Your task to perform on an android device: open app "Walmart Shopping & Grocery" (install if not already installed) and enter user name: "Hans@icloud.com" and password: "executing" Image 0: 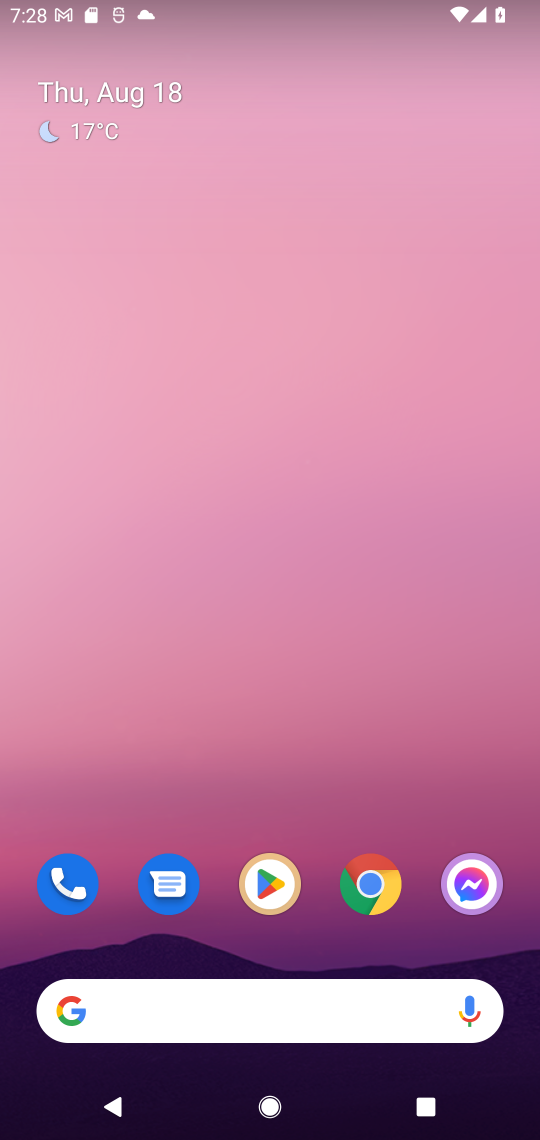
Step 0: drag from (222, 1009) to (319, 156)
Your task to perform on an android device: open app "Walmart Shopping & Grocery" (install if not already installed) and enter user name: "Hans@icloud.com" and password: "executing" Image 1: 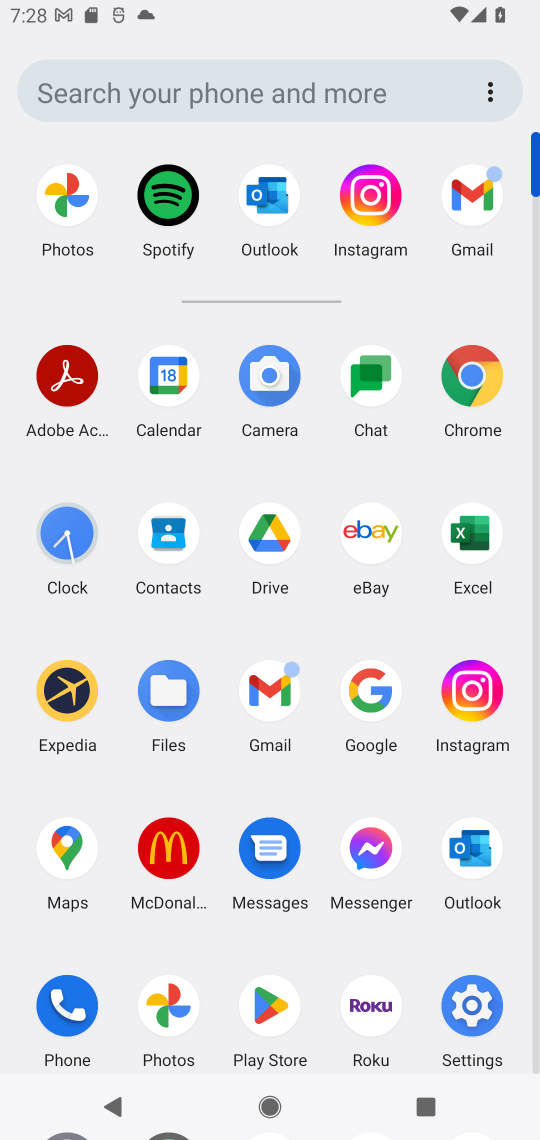
Step 1: click (274, 1003)
Your task to perform on an android device: open app "Walmart Shopping & Grocery" (install if not already installed) and enter user name: "Hans@icloud.com" and password: "executing" Image 2: 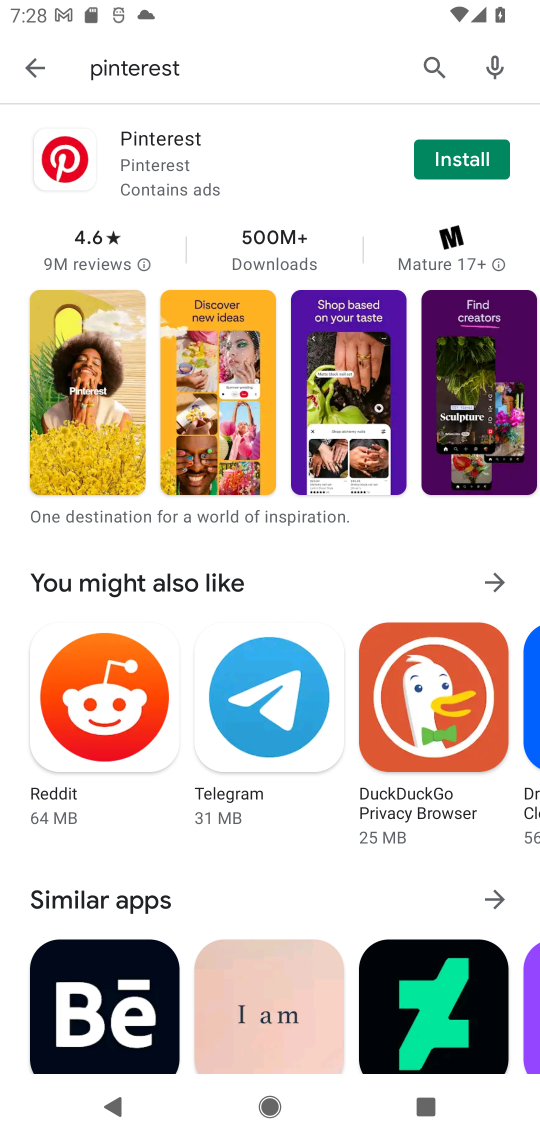
Step 2: press back button
Your task to perform on an android device: open app "Walmart Shopping & Grocery" (install if not already installed) and enter user name: "Hans@icloud.com" and password: "executing" Image 3: 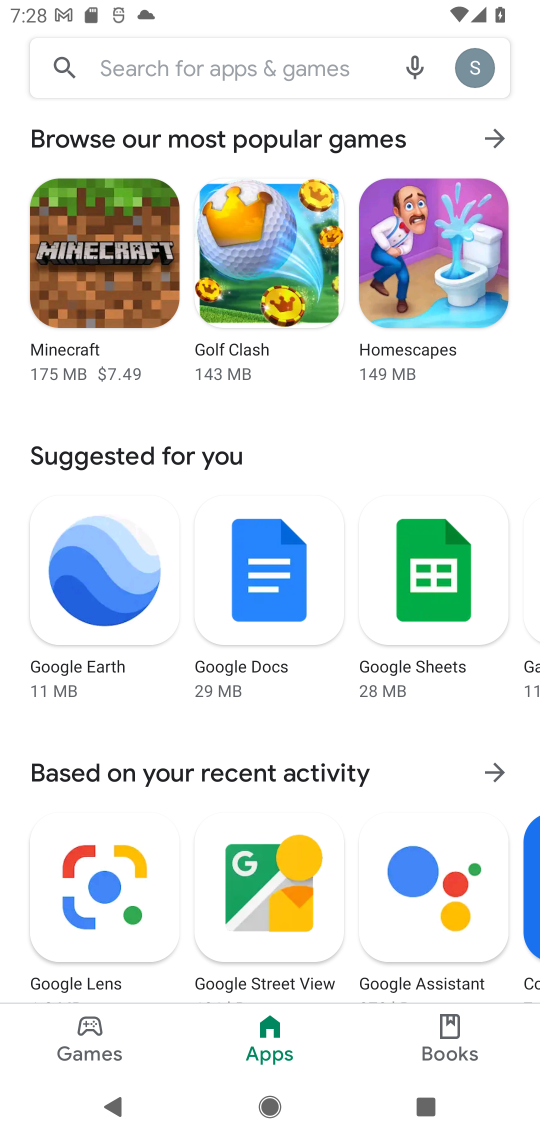
Step 3: click (153, 71)
Your task to perform on an android device: open app "Walmart Shopping & Grocery" (install if not already installed) and enter user name: "Hans@icloud.com" and password: "executing" Image 4: 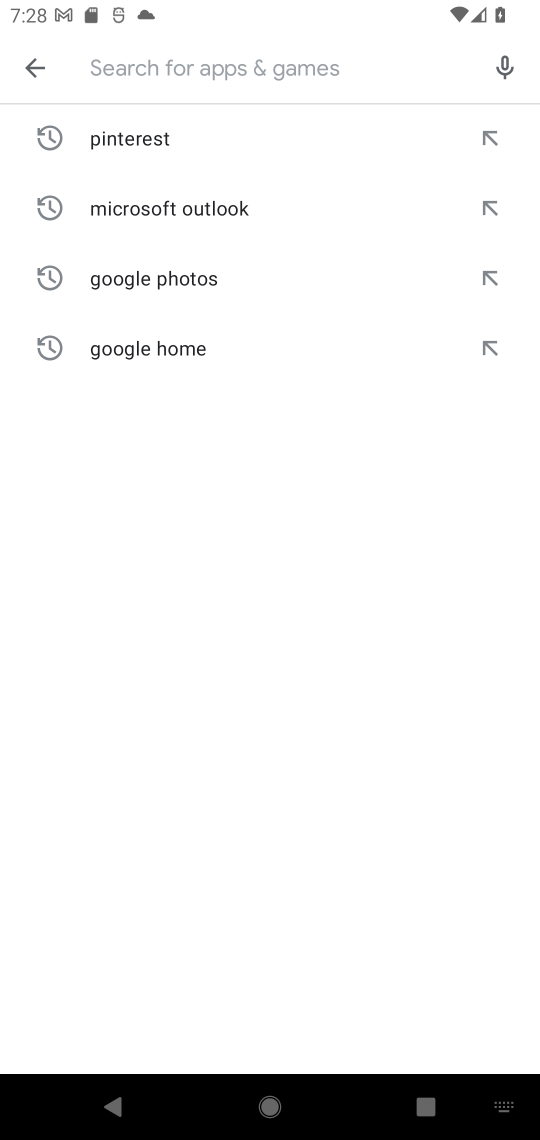
Step 4: type "Walmart Shopping & Grocery"
Your task to perform on an android device: open app "Walmart Shopping & Grocery" (install if not already installed) and enter user name: "Hans@icloud.com" and password: "executing" Image 5: 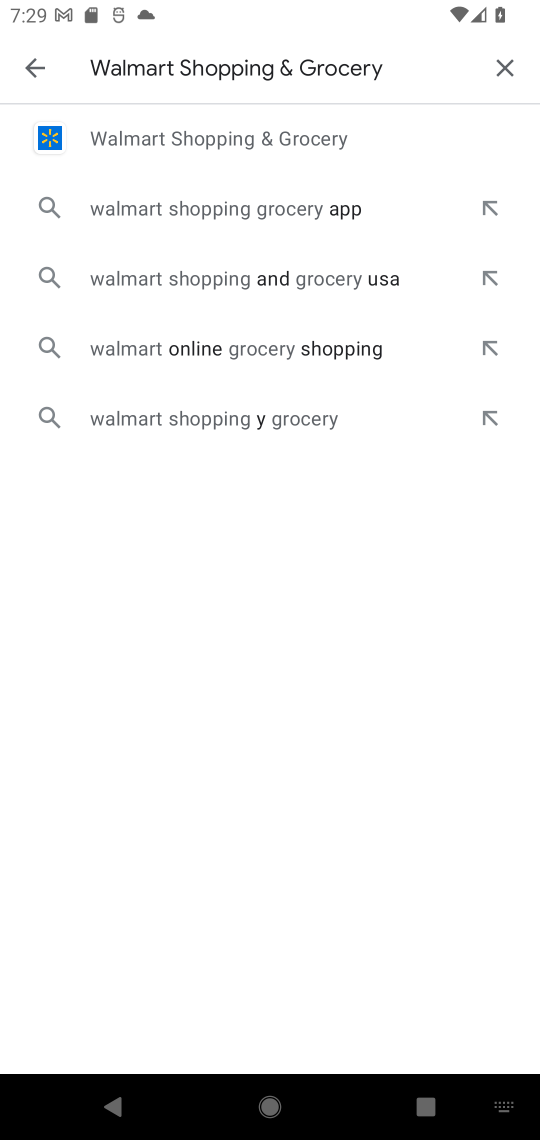
Step 5: click (275, 140)
Your task to perform on an android device: open app "Walmart Shopping & Grocery" (install if not already installed) and enter user name: "Hans@icloud.com" and password: "executing" Image 6: 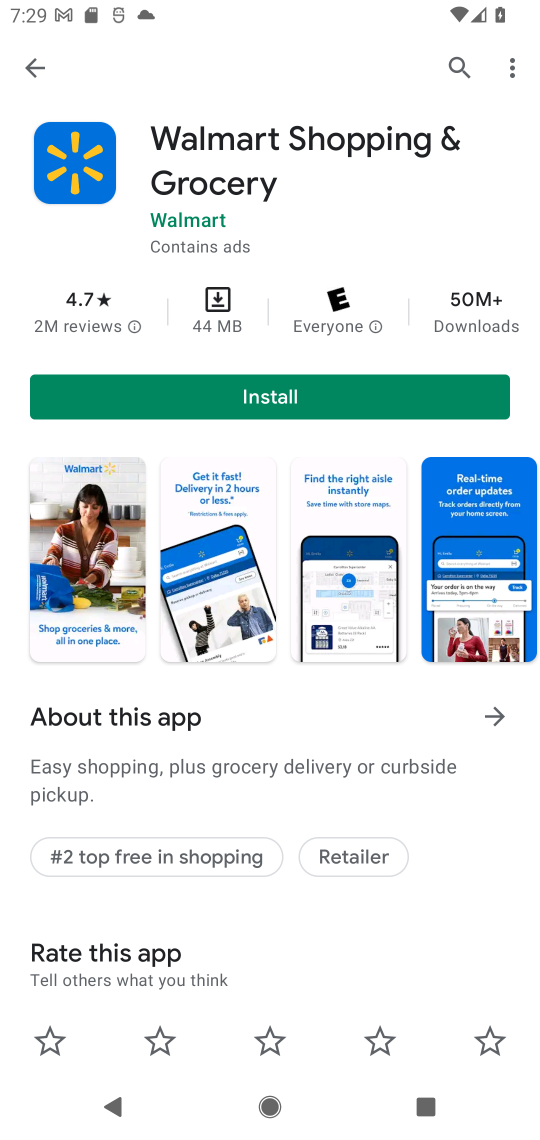
Step 6: click (268, 396)
Your task to perform on an android device: open app "Walmart Shopping & Grocery" (install if not already installed) and enter user name: "Hans@icloud.com" and password: "executing" Image 7: 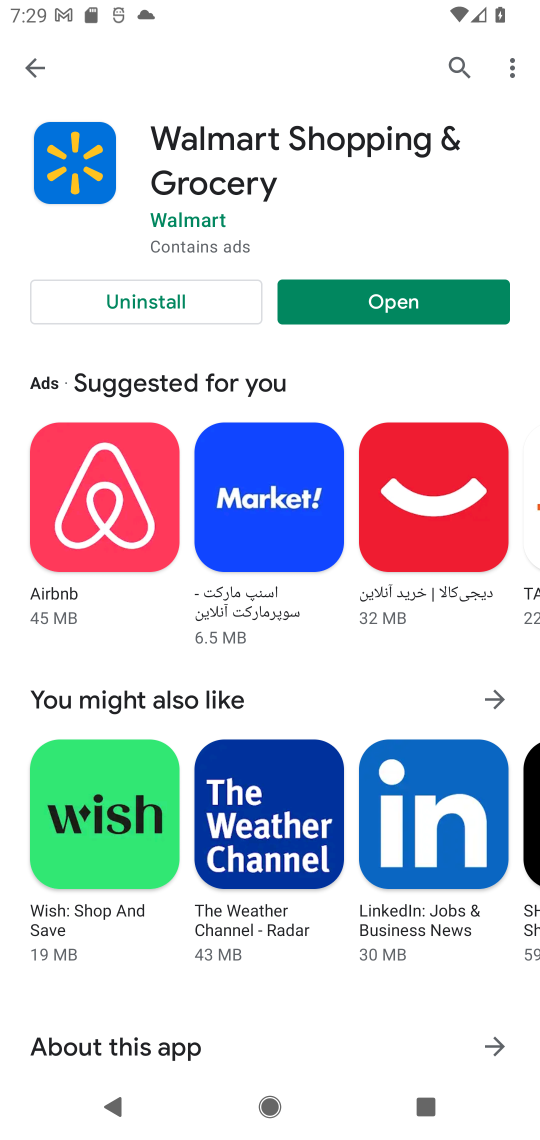
Step 7: click (405, 314)
Your task to perform on an android device: open app "Walmart Shopping & Grocery" (install if not already installed) and enter user name: "Hans@icloud.com" and password: "executing" Image 8: 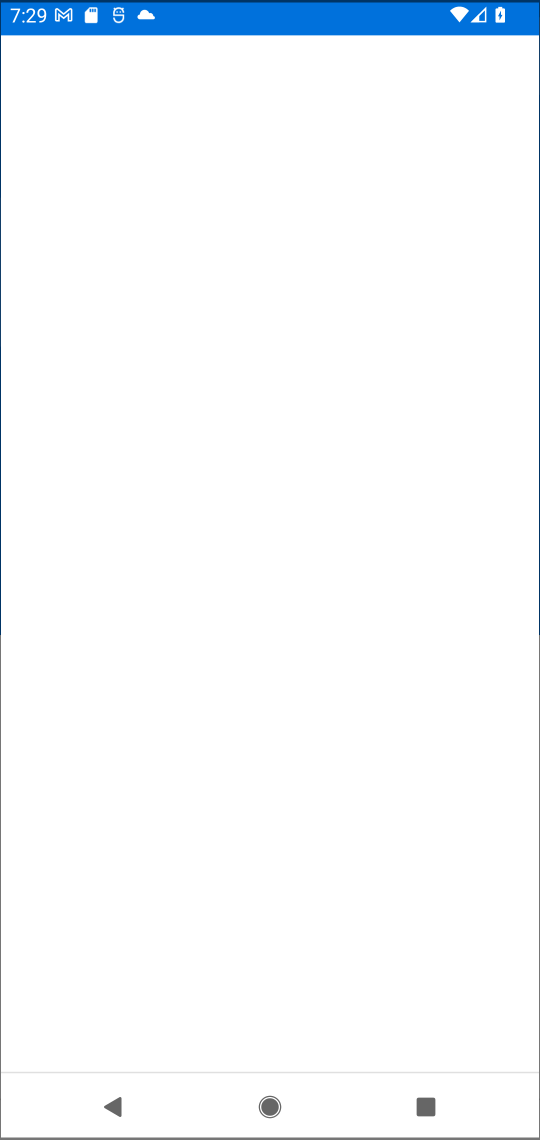
Step 8: click (308, 963)
Your task to perform on an android device: open app "Walmart Shopping & Grocery" (install if not already installed) and enter user name: "Hans@icloud.com" and password: "executing" Image 9: 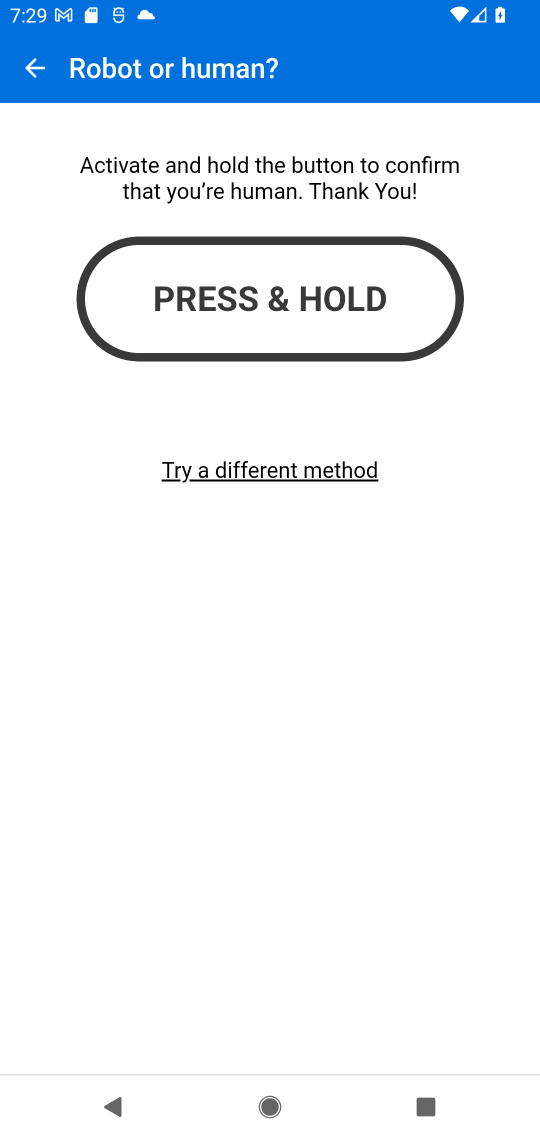
Step 9: click (324, 467)
Your task to perform on an android device: open app "Walmart Shopping & Grocery" (install if not already installed) and enter user name: "Hans@icloud.com" and password: "executing" Image 10: 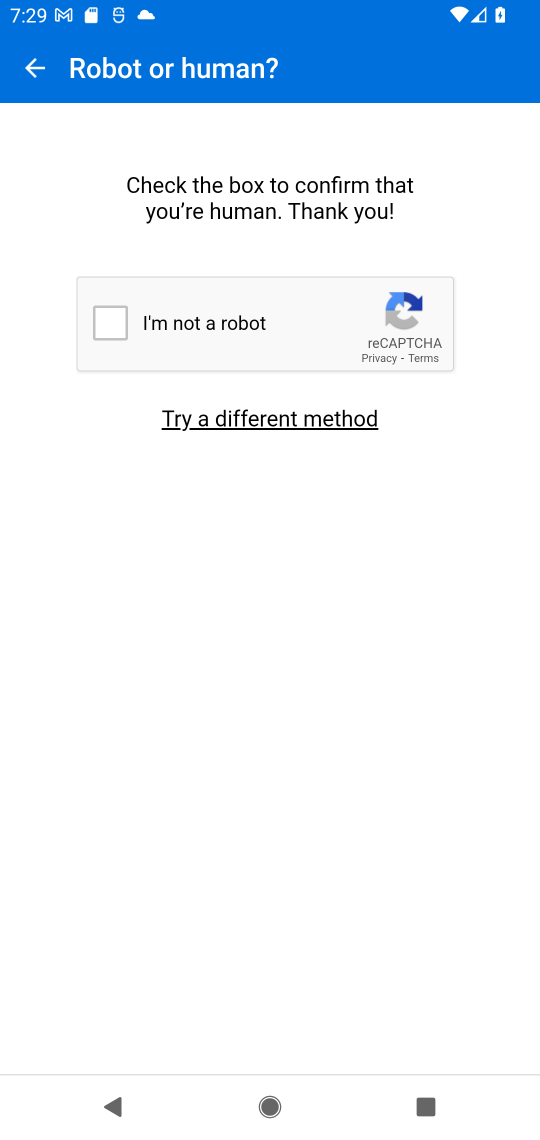
Step 10: click (104, 327)
Your task to perform on an android device: open app "Walmart Shopping & Grocery" (install if not already installed) and enter user name: "Hans@icloud.com" and password: "executing" Image 11: 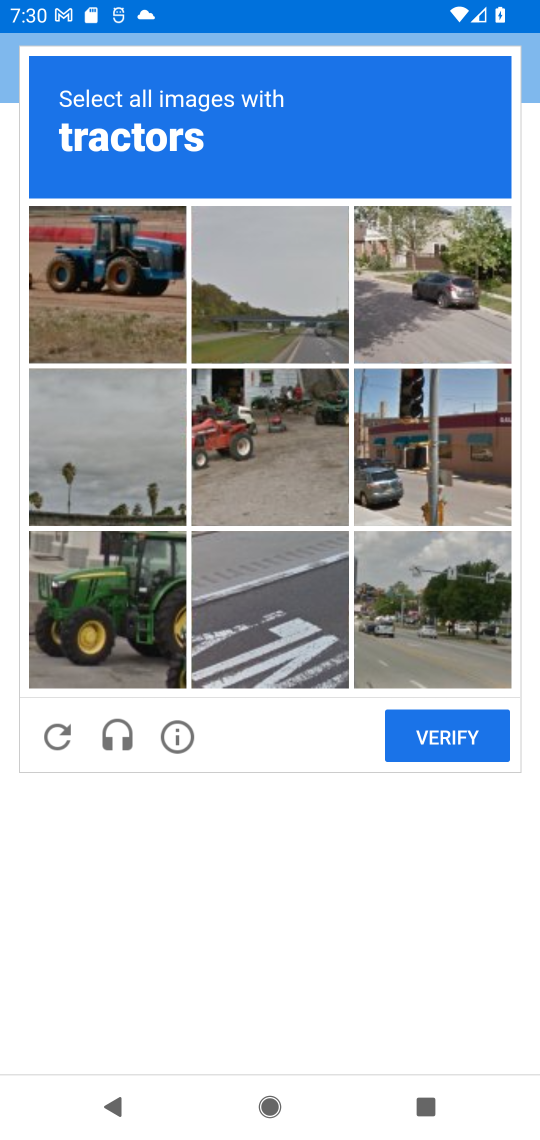
Step 11: click (121, 321)
Your task to perform on an android device: open app "Walmart Shopping & Grocery" (install if not already installed) and enter user name: "Hans@icloud.com" and password: "executing" Image 12: 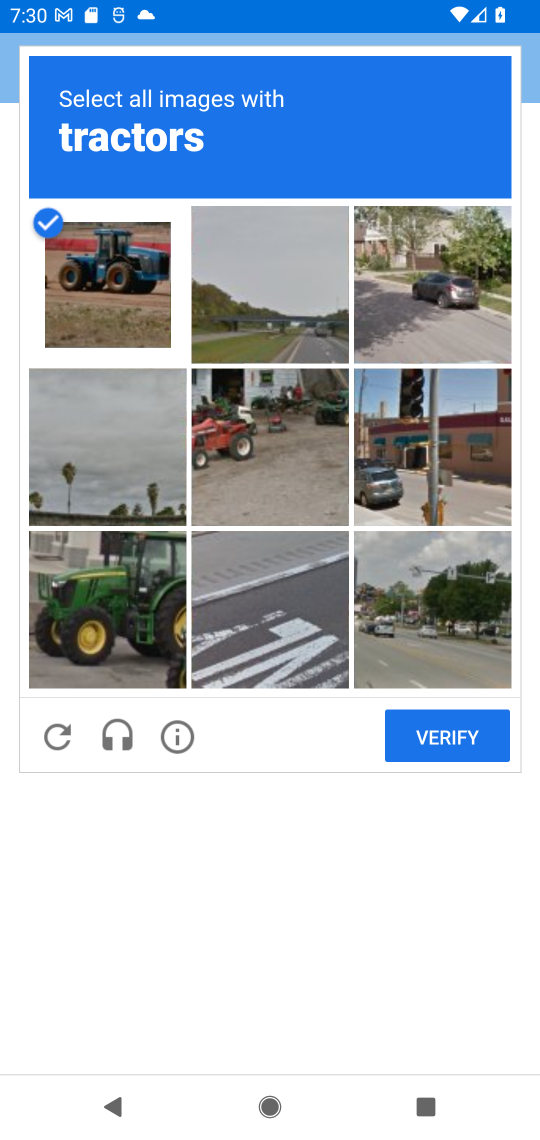
Step 12: click (233, 456)
Your task to perform on an android device: open app "Walmart Shopping & Grocery" (install if not already installed) and enter user name: "Hans@icloud.com" and password: "executing" Image 13: 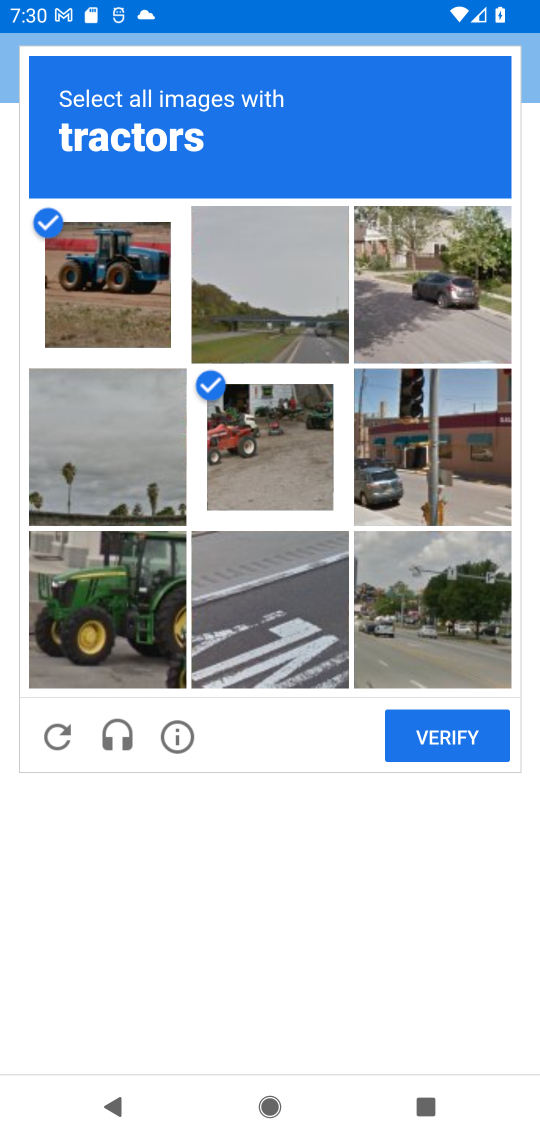
Step 13: click (134, 625)
Your task to perform on an android device: open app "Walmart Shopping & Grocery" (install if not already installed) and enter user name: "Hans@icloud.com" and password: "executing" Image 14: 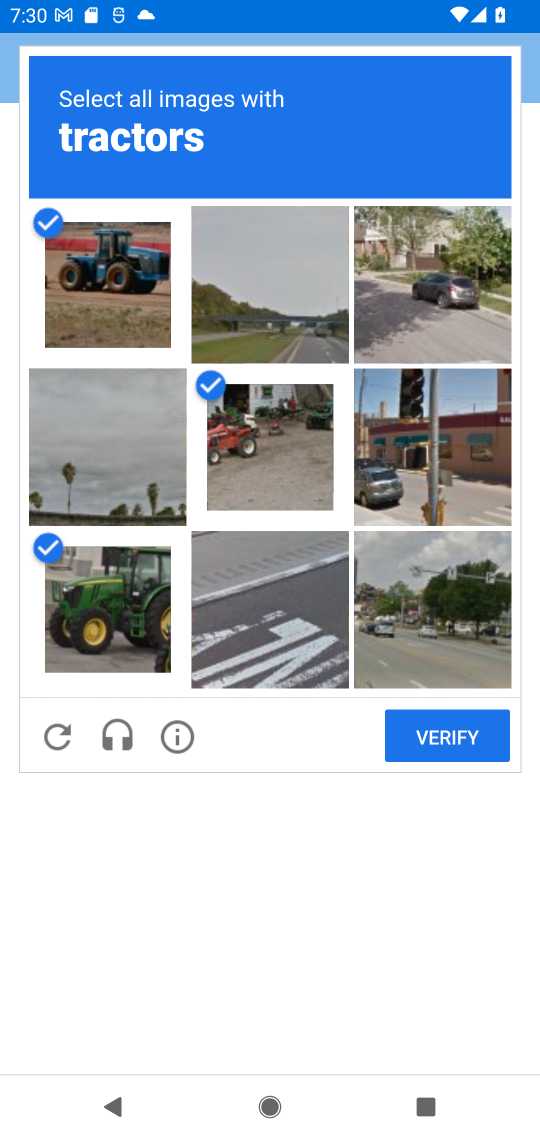
Step 14: click (461, 740)
Your task to perform on an android device: open app "Walmart Shopping & Grocery" (install if not already installed) and enter user name: "Hans@icloud.com" and password: "executing" Image 15: 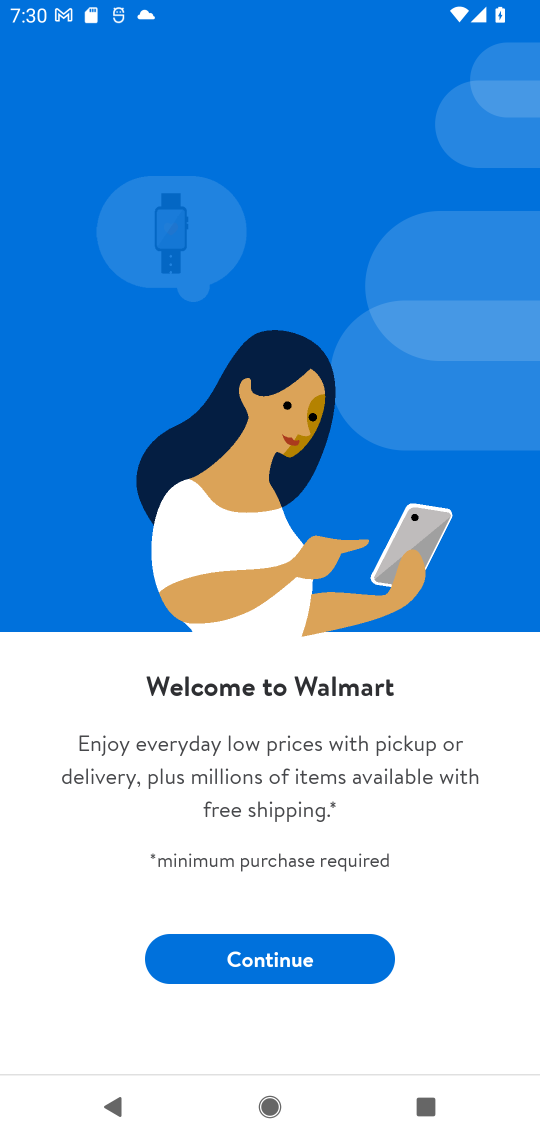
Step 15: click (276, 962)
Your task to perform on an android device: open app "Walmart Shopping & Grocery" (install if not already installed) and enter user name: "Hans@icloud.com" and password: "executing" Image 16: 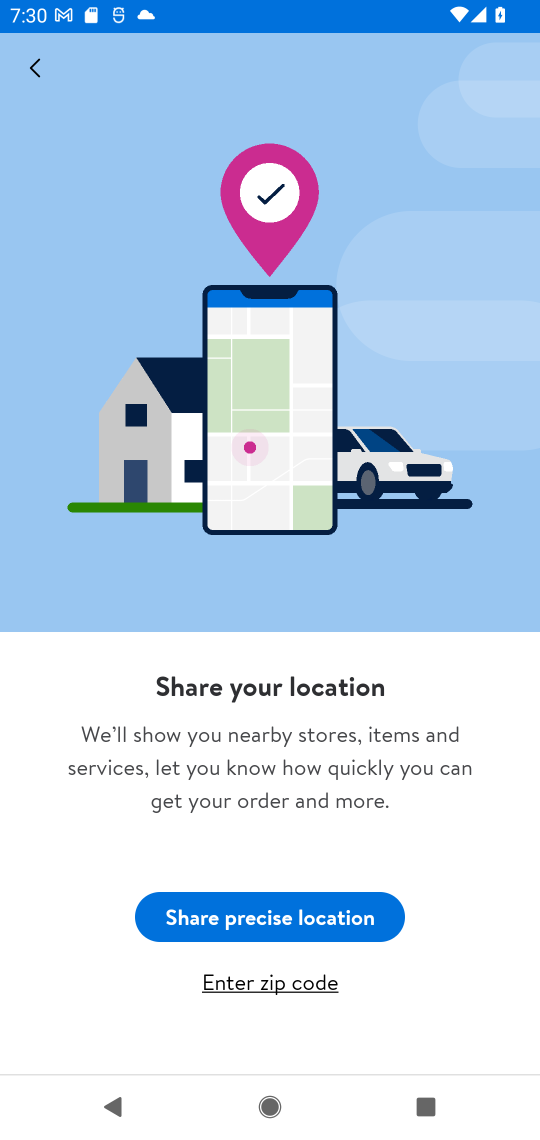
Step 16: click (297, 925)
Your task to perform on an android device: open app "Walmart Shopping & Grocery" (install if not already installed) and enter user name: "Hans@icloud.com" and password: "executing" Image 17: 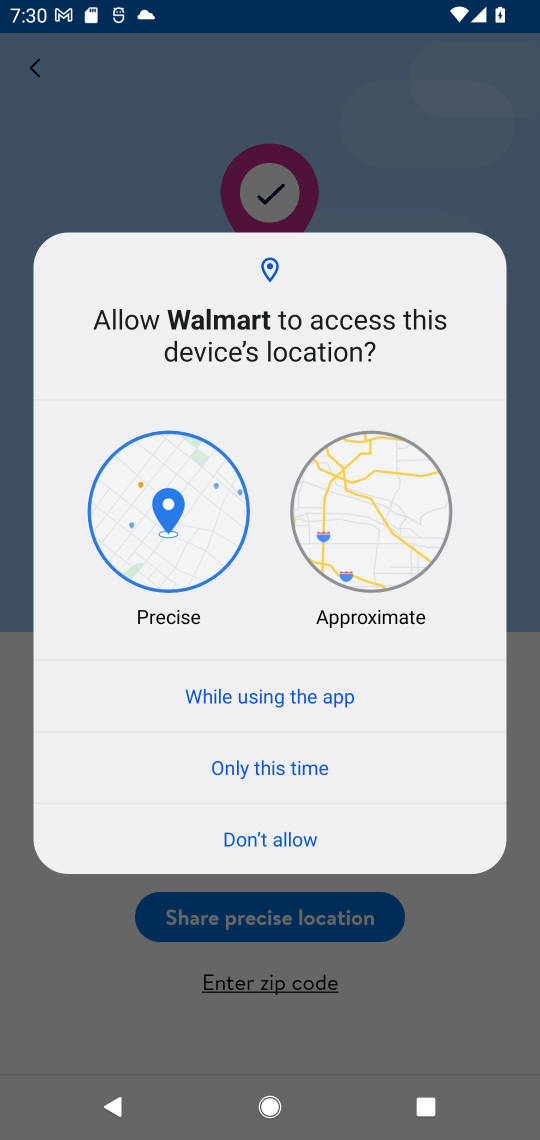
Step 17: click (290, 695)
Your task to perform on an android device: open app "Walmart Shopping & Grocery" (install if not already installed) and enter user name: "Hans@icloud.com" and password: "executing" Image 18: 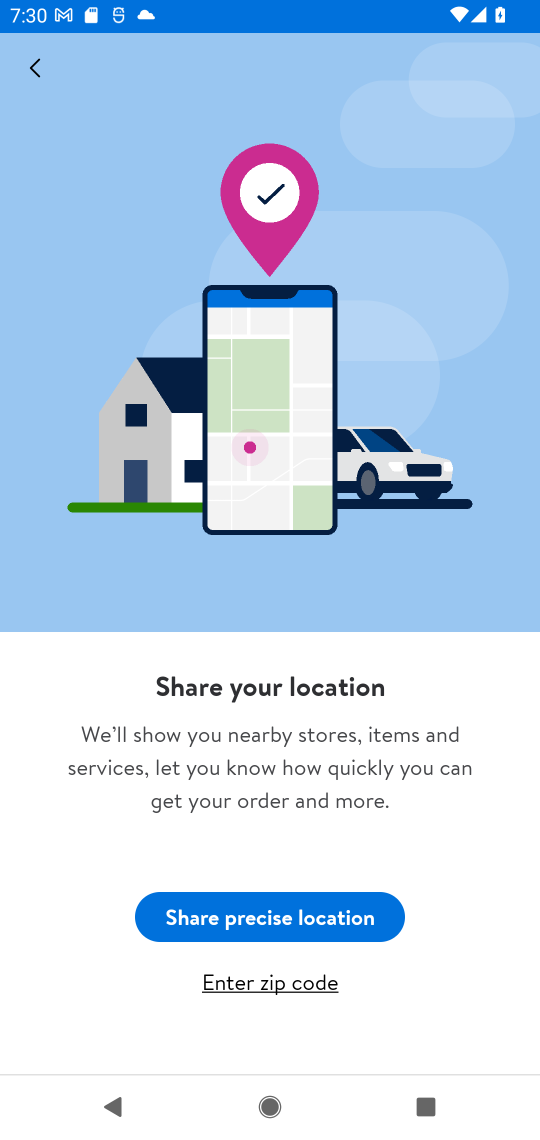
Step 18: click (282, 919)
Your task to perform on an android device: open app "Walmart Shopping & Grocery" (install if not already installed) and enter user name: "Hans@icloud.com" and password: "executing" Image 19: 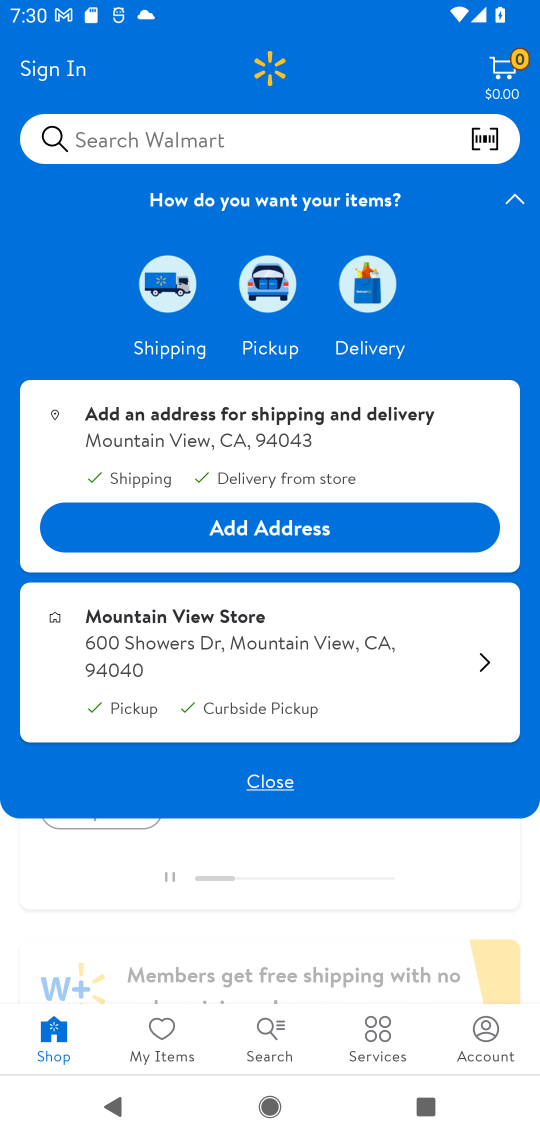
Step 19: click (58, 71)
Your task to perform on an android device: open app "Walmart Shopping & Grocery" (install if not already installed) and enter user name: "Hans@icloud.com" and password: "executing" Image 20: 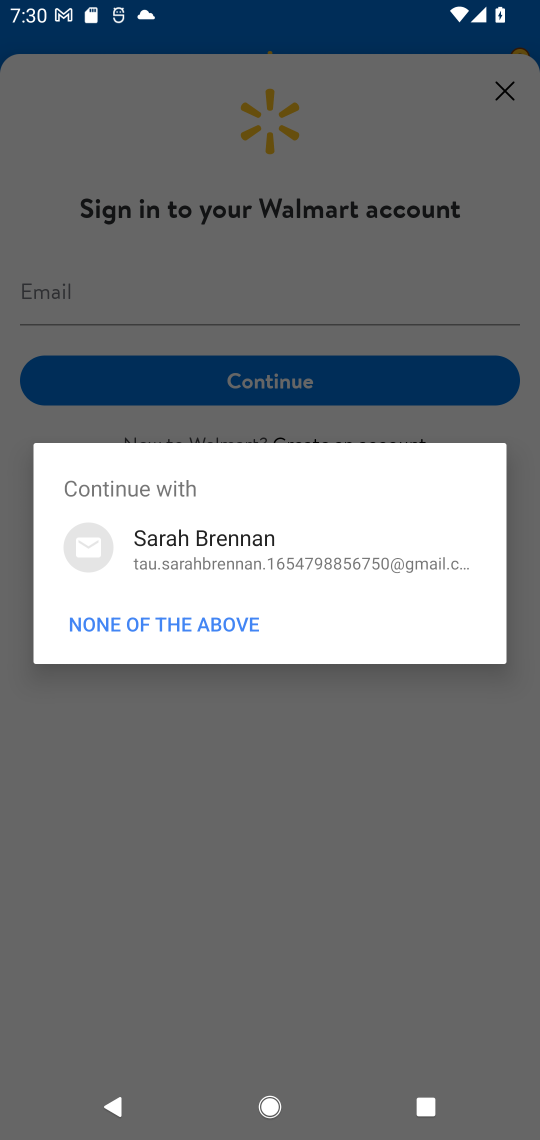
Step 20: click (222, 683)
Your task to perform on an android device: open app "Walmart Shopping & Grocery" (install if not already installed) and enter user name: "Hans@icloud.com" and password: "executing" Image 21: 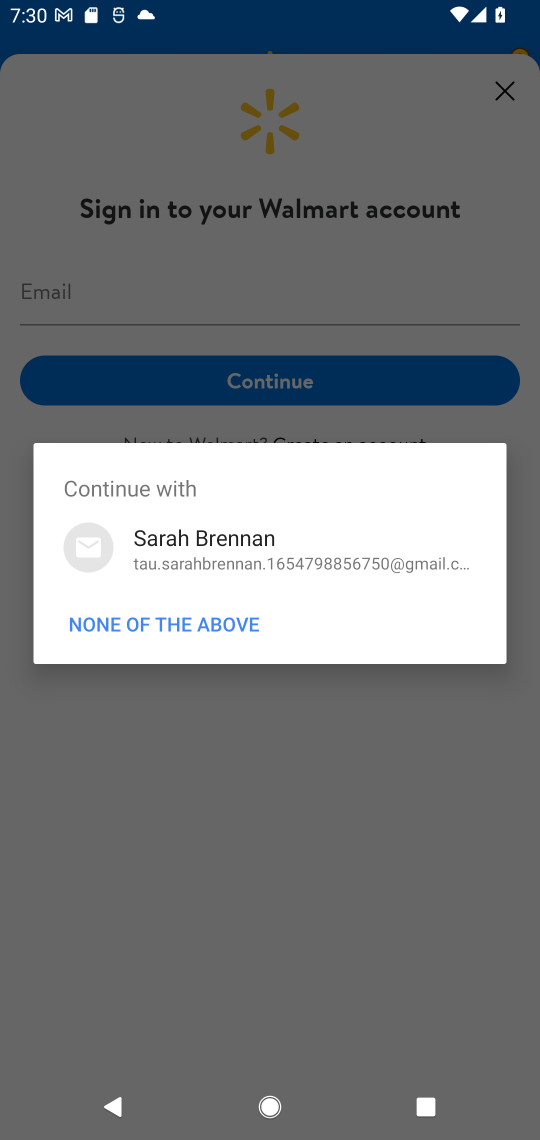
Step 21: click (222, 623)
Your task to perform on an android device: open app "Walmart Shopping & Grocery" (install if not already installed) and enter user name: "Hans@icloud.com" and password: "executing" Image 22: 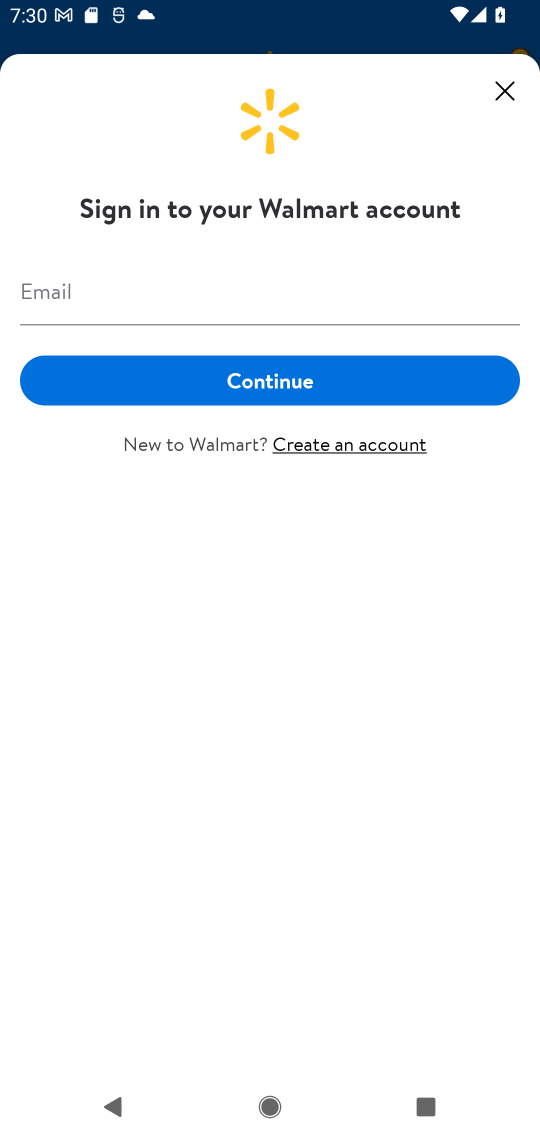
Step 22: click (239, 311)
Your task to perform on an android device: open app "Walmart Shopping & Grocery" (install if not already installed) and enter user name: "Hans@icloud.com" and password: "executing" Image 23: 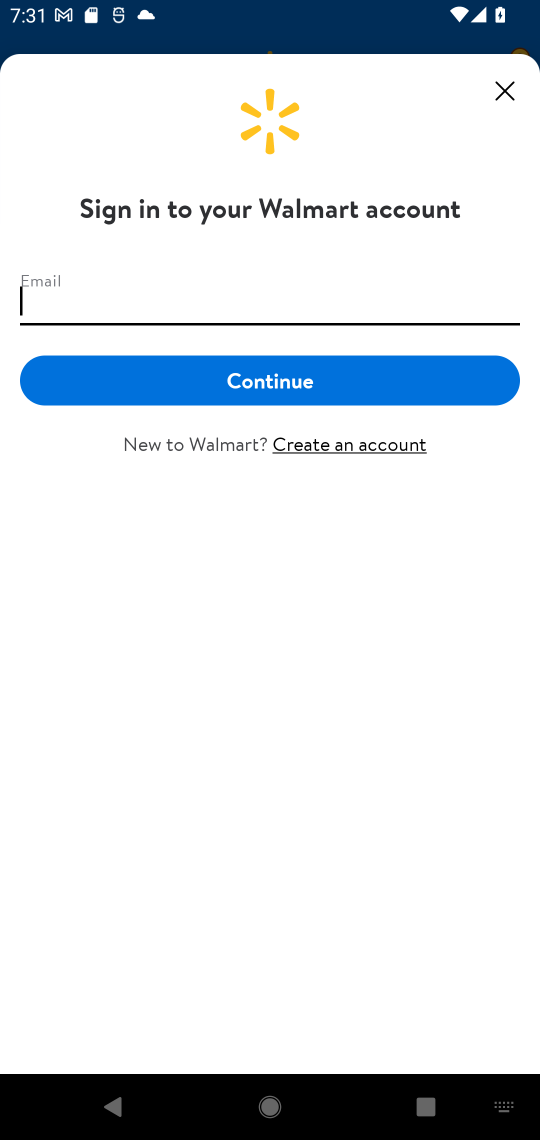
Step 23: type "Hans@icloud.com"
Your task to perform on an android device: open app "Walmart Shopping & Grocery" (install if not already installed) and enter user name: "Hans@icloud.com" and password: "executing" Image 24: 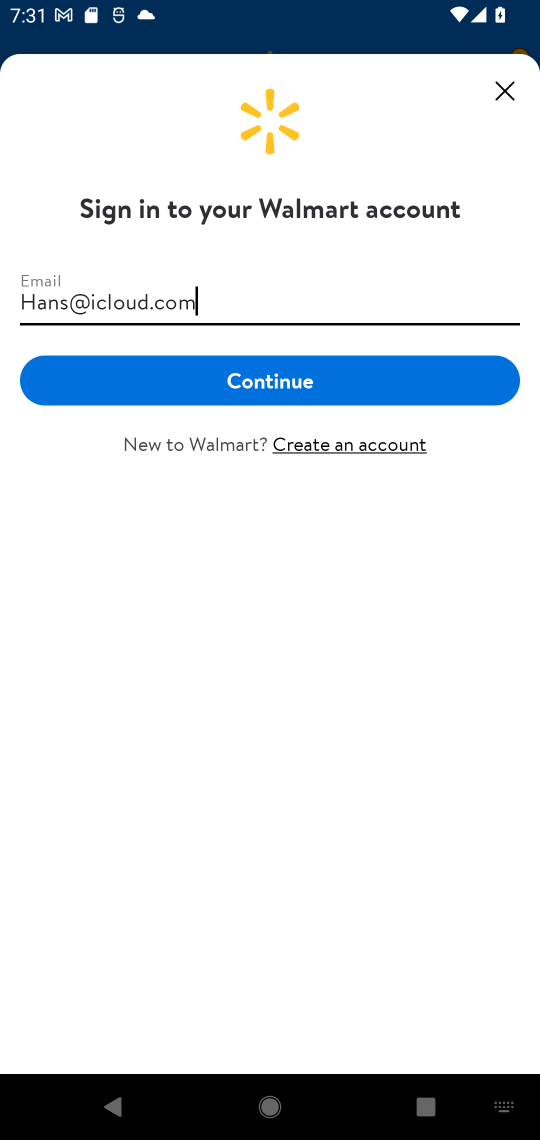
Step 24: click (179, 381)
Your task to perform on an android device: open app "Walmart Shopping & Grocery" (install if not already installed) and enter user name: "Hans@icloud.com" and password: "executing" Image 25: 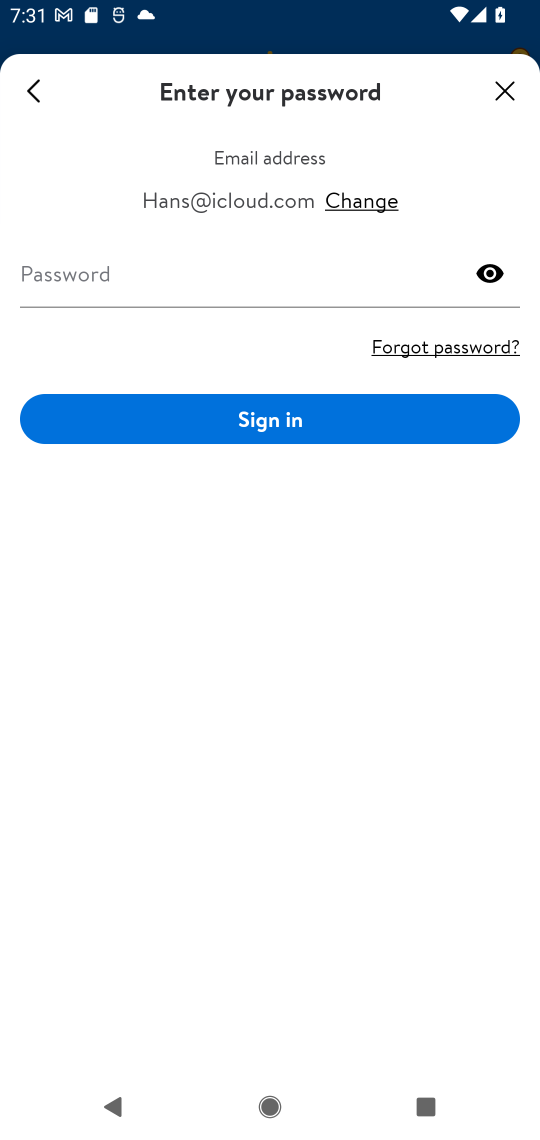
Step 25: click (359, 269)
Your task to perform on an android device: open app "Walmart Shopping & Grocery" (install if not already installed) and enter user name: "Hans@icloud.com" and password: "executing" Image 26: 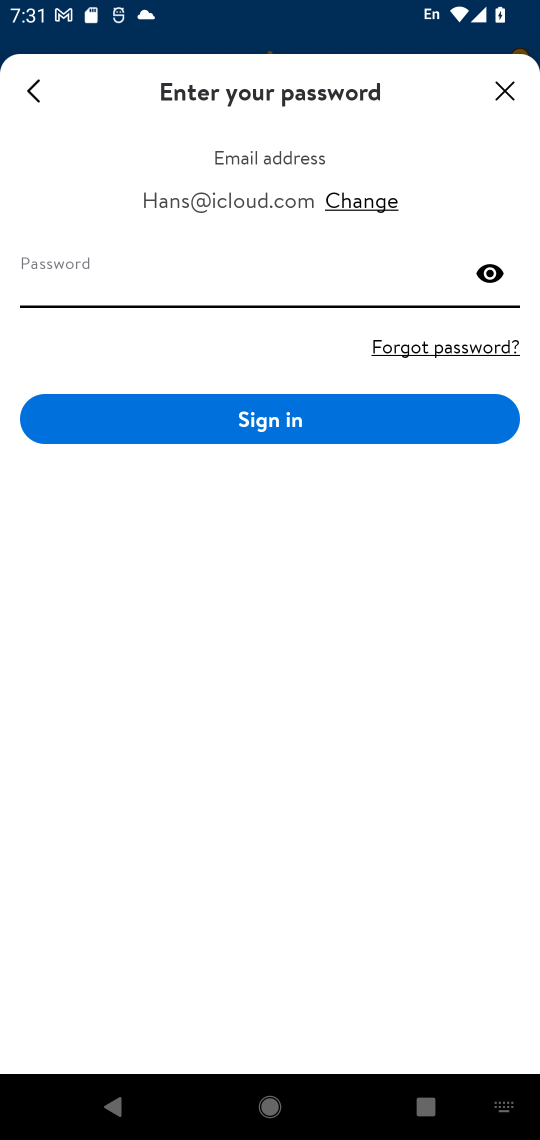
Step 26: type "executing"
Your task to perform on an android device: open app "Walmart Shopping & Grocery" (install if not already installed) and enter user name: "Hans@icloud.com" and password: "executing" Image 27: 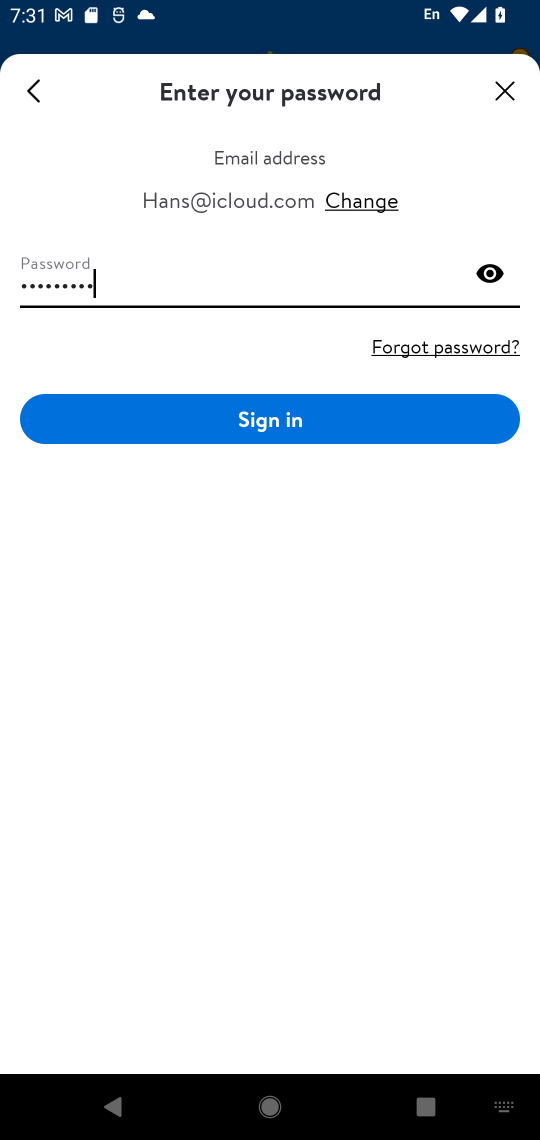
Step 27: task complete